Your task to perform on an android device: find which apps use the phone's location Image 0: 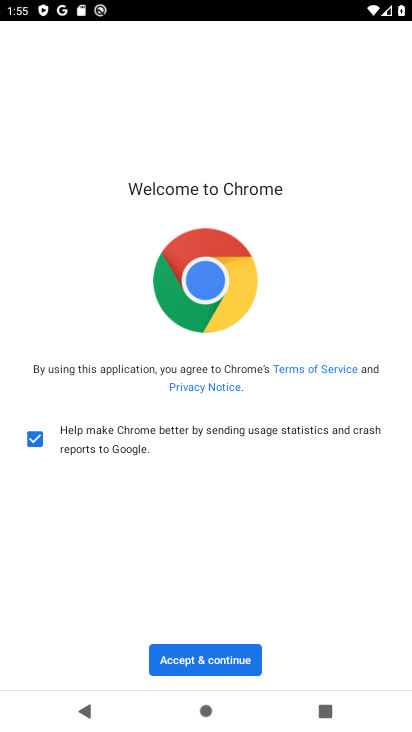
Step 0: press home button
Your task to perform on an android device: find which apps use the phone's location Image 1: 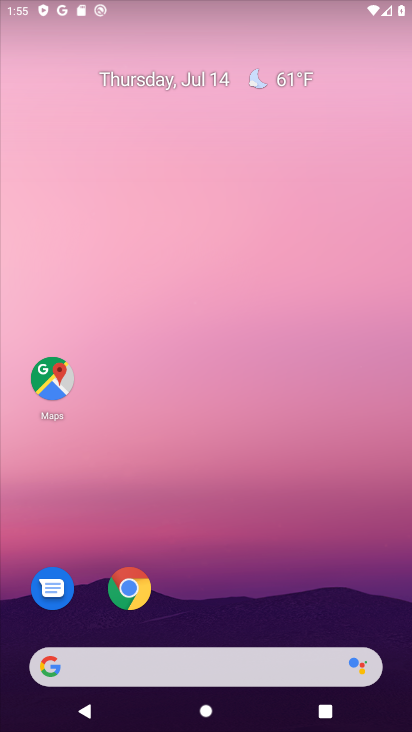
Step 1: drag from (244, 609) to (313, 149)
Your task to perform on an android device: find which apps use the phone's location Image 2: 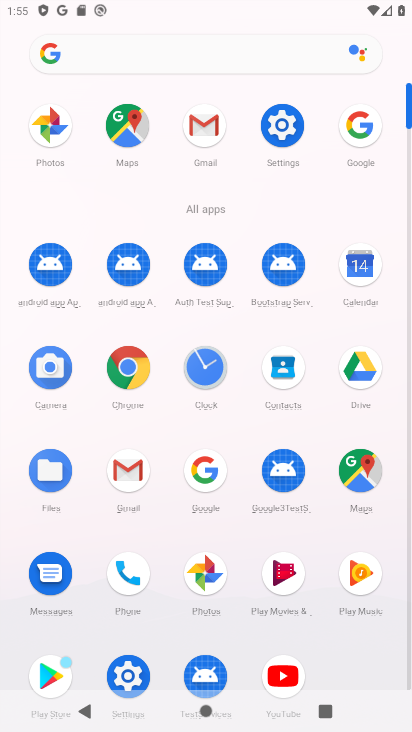
Step 2: click (290, 127)
Your task to perform on an android device: find which apps use the phone's location Image 3: 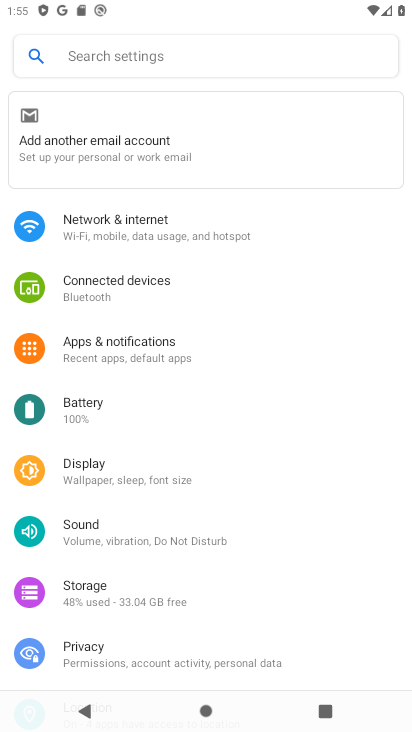
Step 3: drag from (143, 595) to (149, 282)
Your task to perform on an android device: find which apps use the phone's location Image 4: 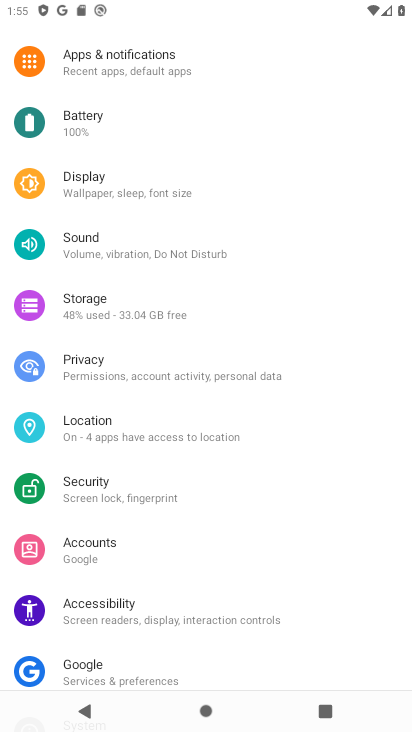
Step 4: click (92, 436)
Your task to perform on an android device: find which apps use the phone's location Image 5: 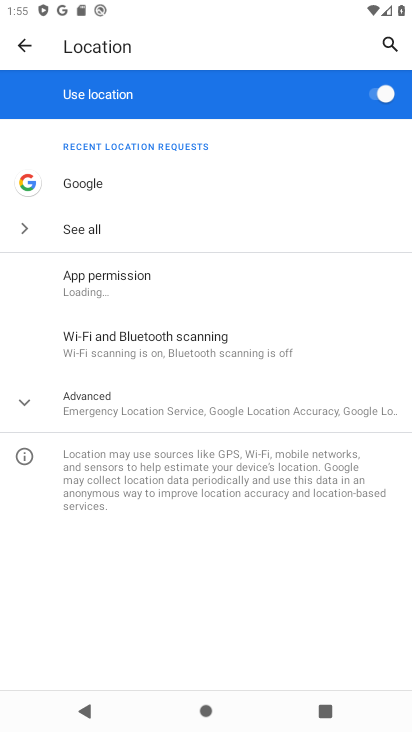
Step 5: click (145, 283)
Your task to perform on an android device: find which apps use the phone's location Image 6: 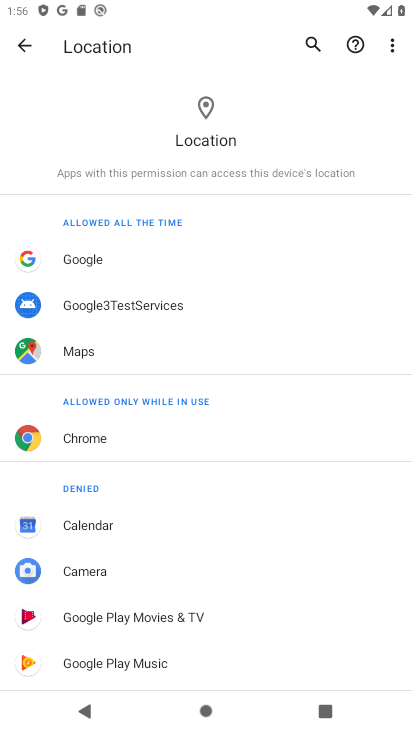
Step 6: task complete